Your task to perform on an android device: See recent photos Image 0: 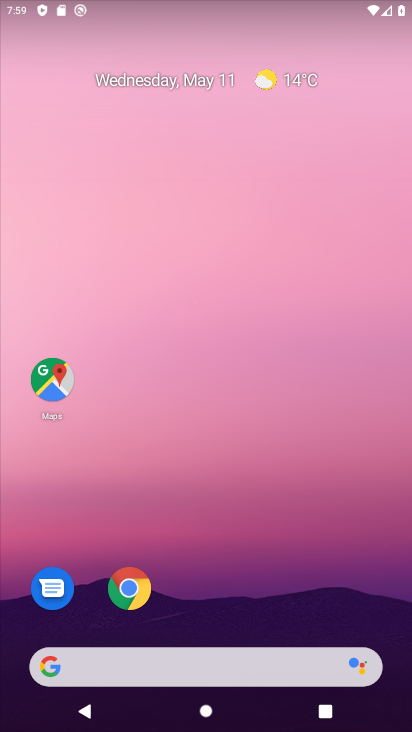
Step 0: drag from (179, 622) to (284, 117)
Your task to perform on an android device: See recent photos Image 1: 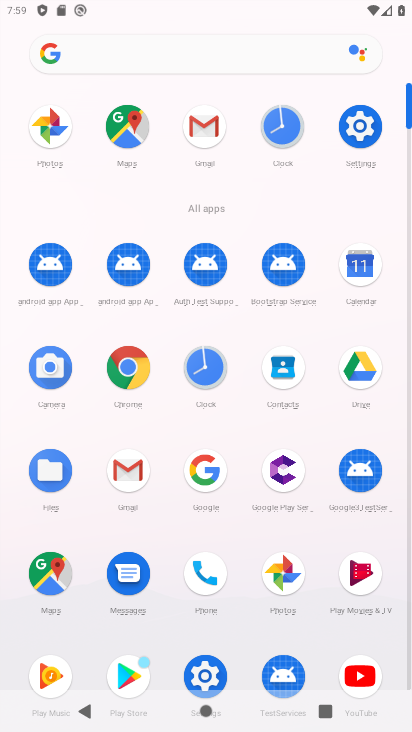
Step 1: click (285, 578)
Your task to perform on an android device: See recent photos Image 2: 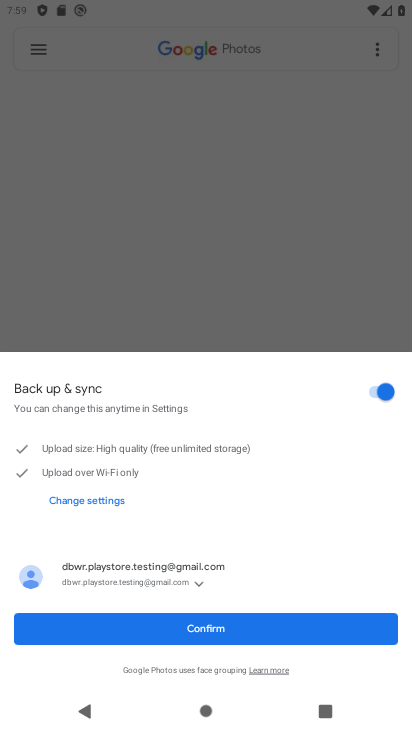
Step 2: click (292, 633)
Your task to perform on an android device: See recent photos Image 3: 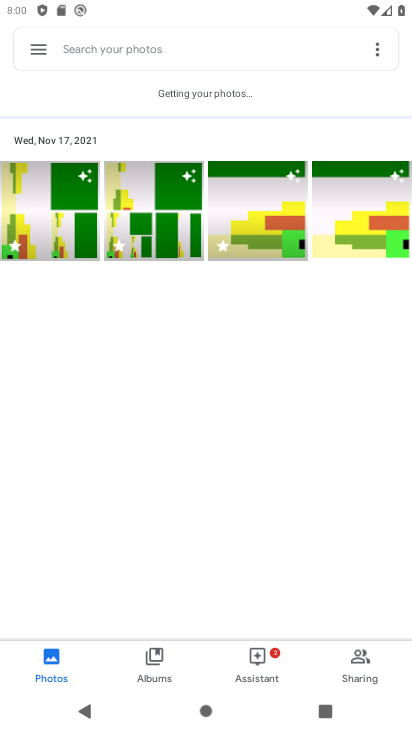
Step 3: task complete